Your task to perform on an android device: Check the news Image 0: 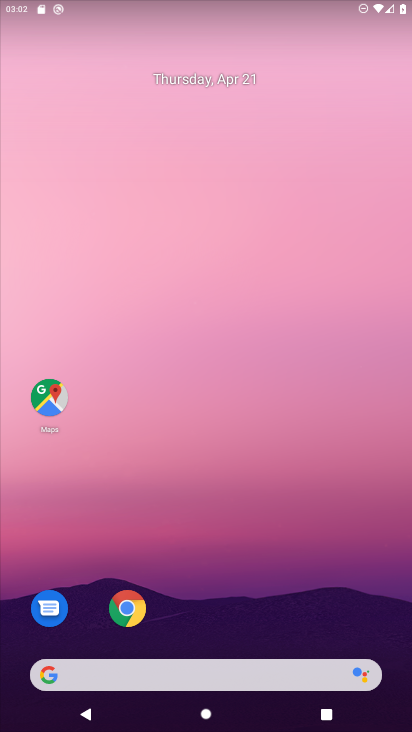
Step 0: drag from (271, 539) to (267, 144)
Your task to perform on an android device: Check the news Image 1: 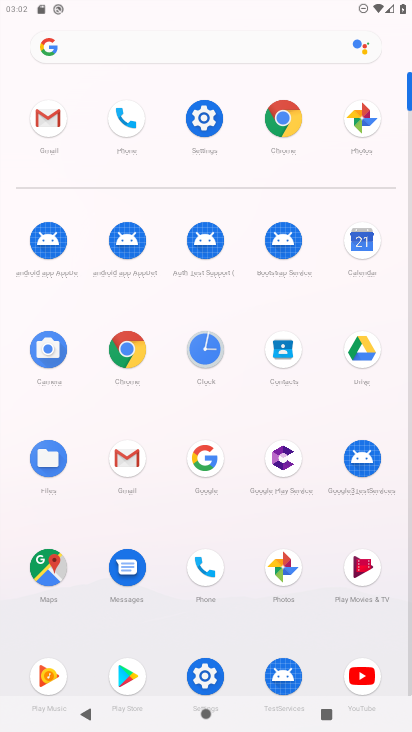
Step 1: click (276, 127)
Your task to perform on an android device: Check the news Image 2: 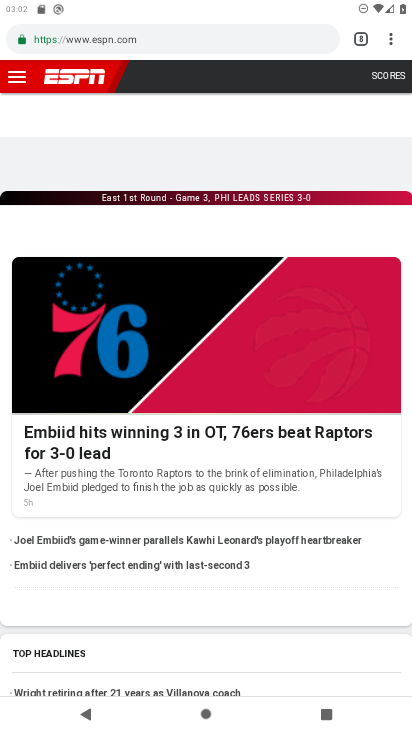
Step 2: click (391, 28)
Your task to perform on an android device: Check the news Image 3: 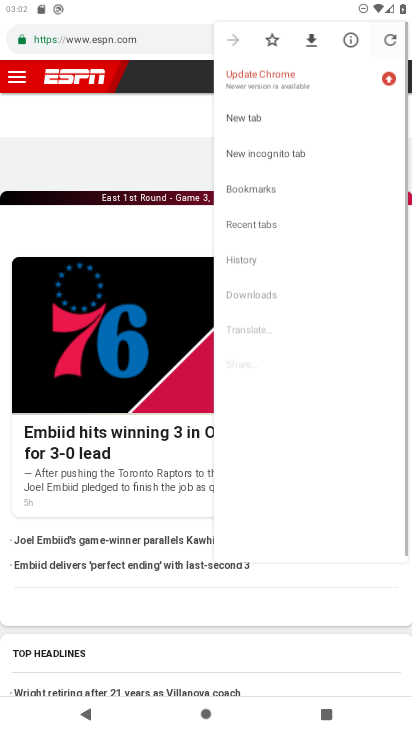
Step 3: click (391, 28)
Your task to perform on an android device: Check the news Image 4: 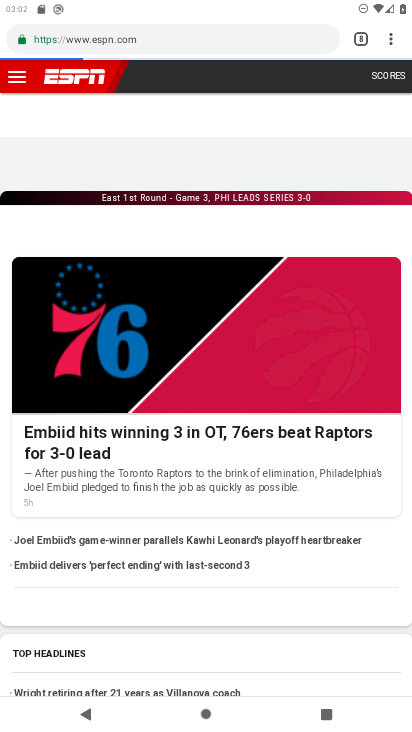
Step 4: click (271, 112)
Your task to perform on an android device: Check the news Image 5: 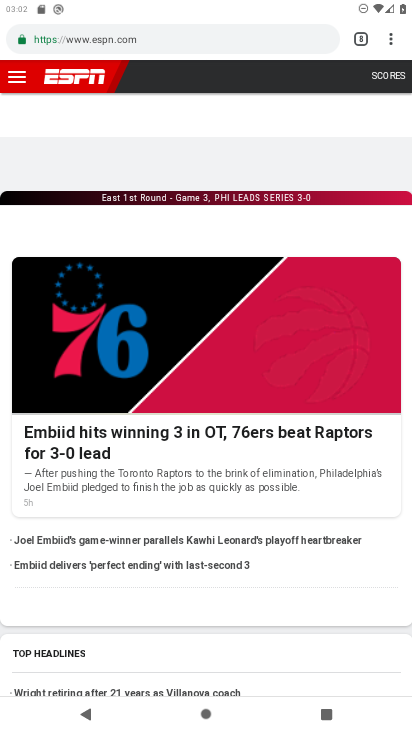
Step 5: click (386, 42)
Your task to perform on an android device: Check the news Image 6: 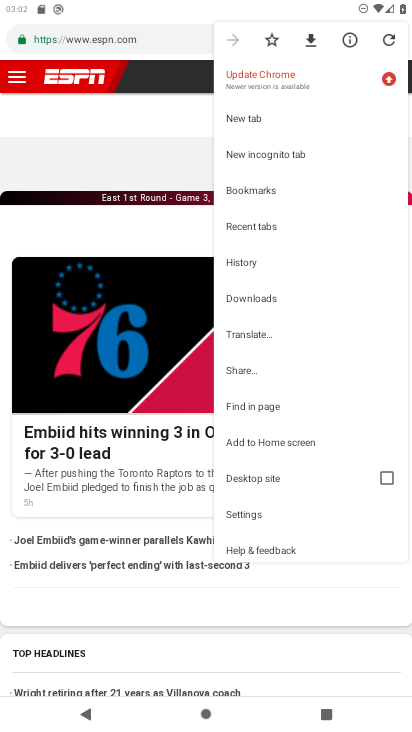
Step 6: click (291, 125)
Your task to perform on an android device: Check the news Image 7: 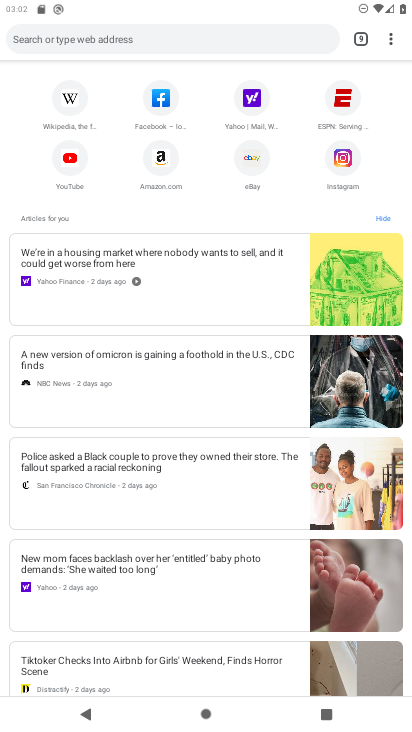
Step 7: click (245, 36)
Your task to perform on an android device: Check the news Image 8: 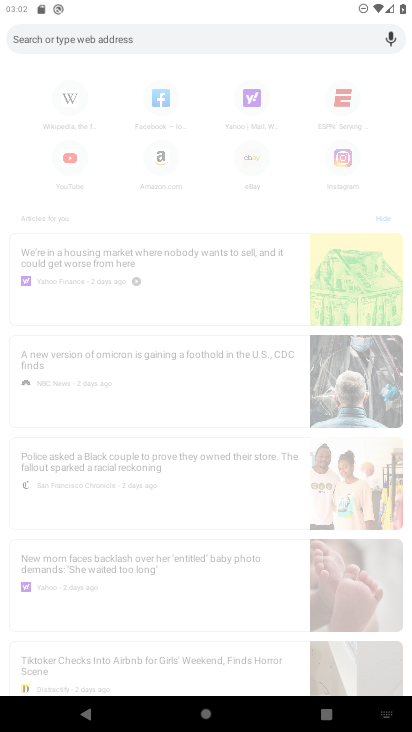
Step 8: type "news"
Your task to perform on an android device: Check the news Image 9: 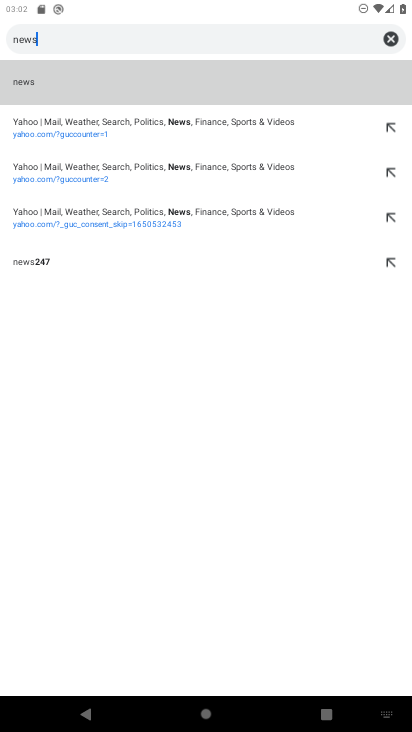
Step 9: click (230, 76)
Your task to perform on an android device: Check the news Image 10: 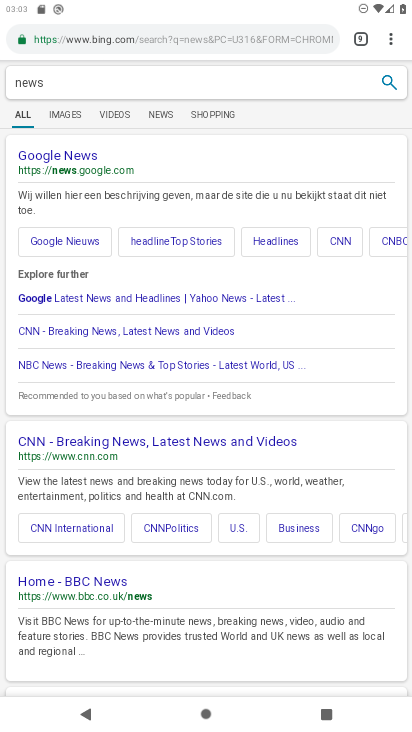
Step 10: task complete